Your task to perform on an android device: Show me productivity apps on the Play Store Image 0: 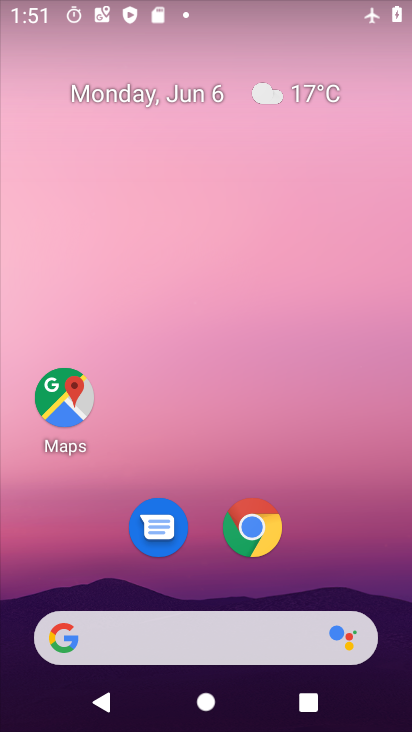
Step 0: drag from (242, 730) to (207, 58)
Your task to perform on an android device: Show me productivity apps on the Play Store Image 1: 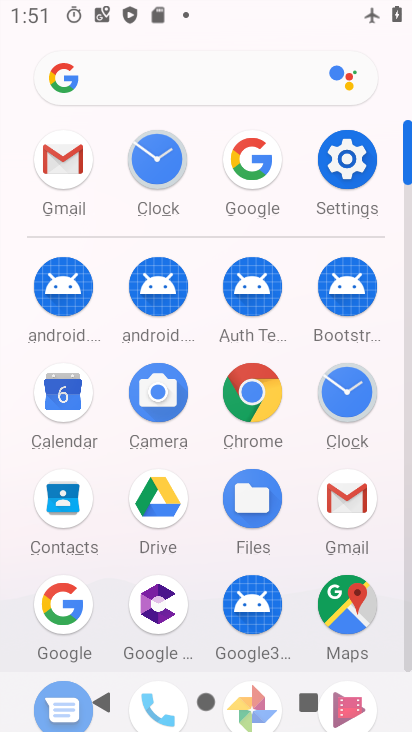
Step 1: drag from (292, 665) to (292, 280)
Your task to perform on an android device: Show me productivity apps on the Play Store Image 2: 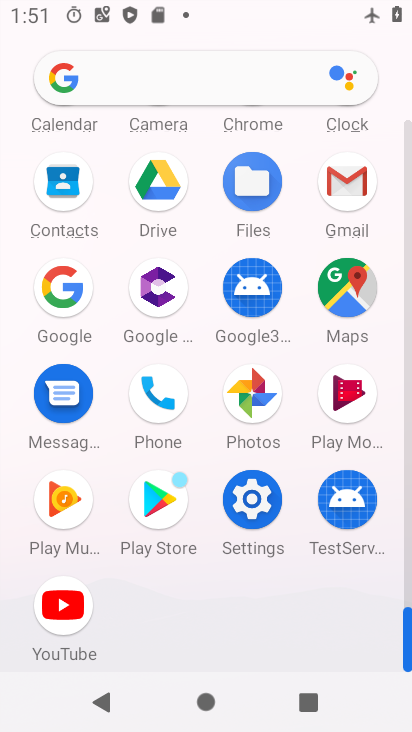
Step 2: click (165, 505)
Your task to perform on an android device: Show me productivity apps on the Play Store Image 3: 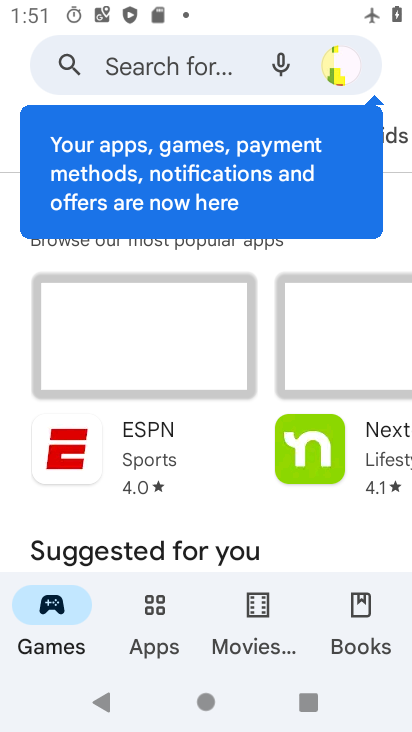
Step 3: click (147, 626)
Your task to perform on an android device: Show me productivity apps on the Play Store Image 4: 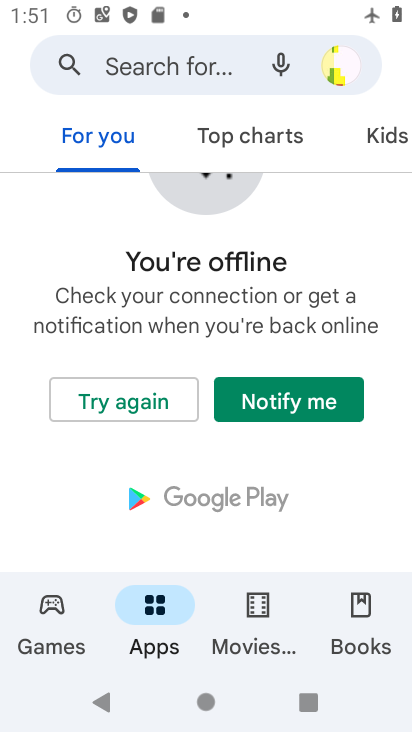
Step 4: drag from (377, 133) to (137, 141)
Your task to perform on an android device: Show me productivity apps on the Play Store Image 5: 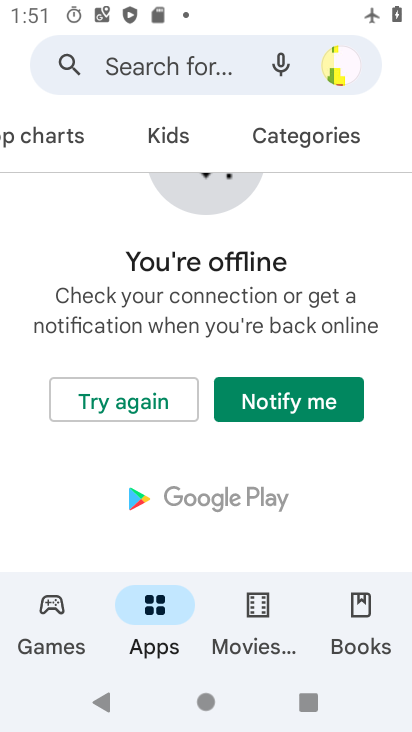
Step 5: click (283, 133)
Your task to perform on an android device: Show me productivity apps on the Play Store Image 6: 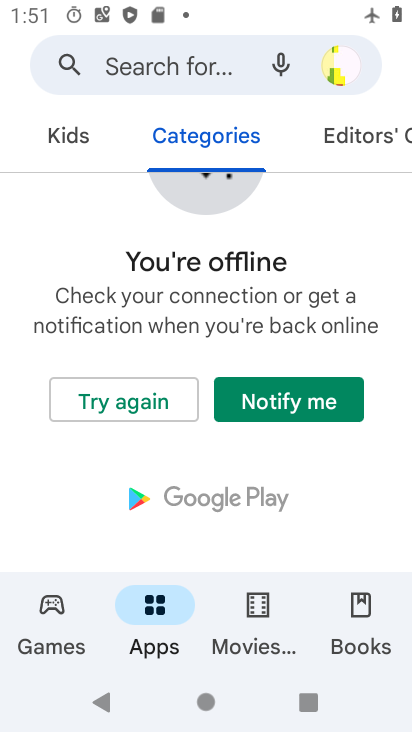
Step 6: task complete